Your task to perform on an android device: Go to Maps Image 0: 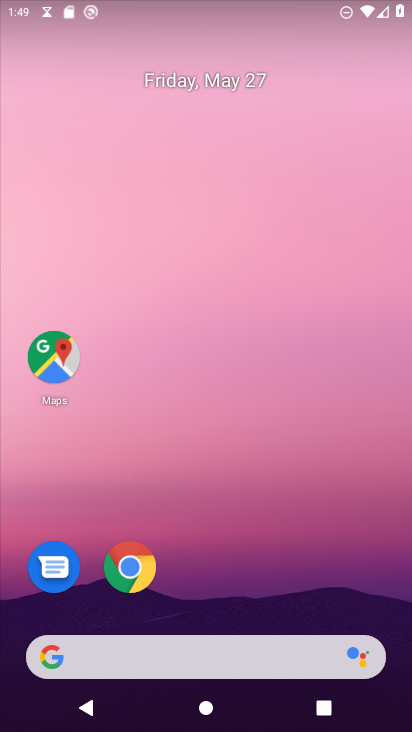
Step 0: click (65, 354)
Your task to perform on an android device: Go to Maps Image 1: 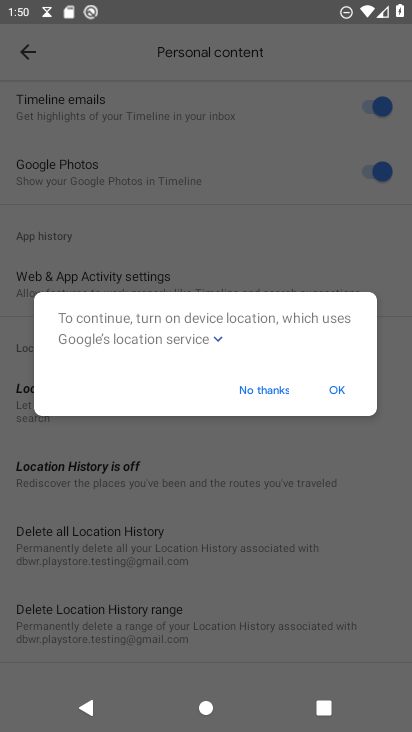
Step 1: click (280, 391)
Your task to perform on an android device: Go to Maps Image 2: 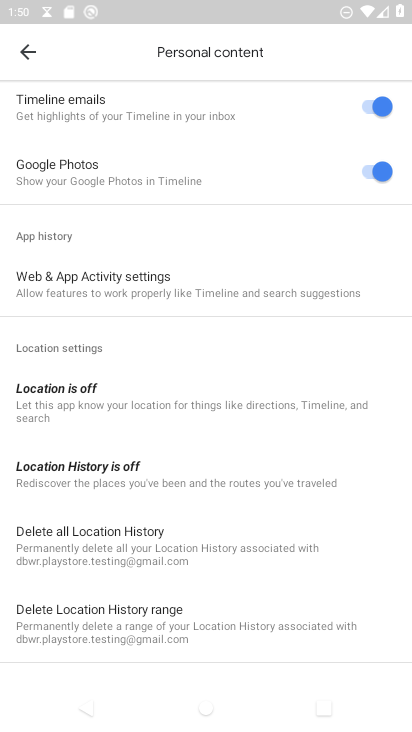
Step 2: click (28, 53)
Your task to perform on an android device: Go to Maps Image 3: 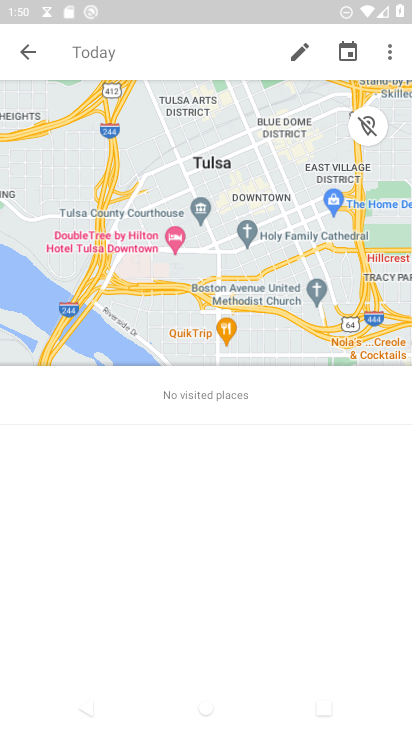
Step 3: click (28, 53)
Your task to perform on an android device: Go to Maps Image 4: 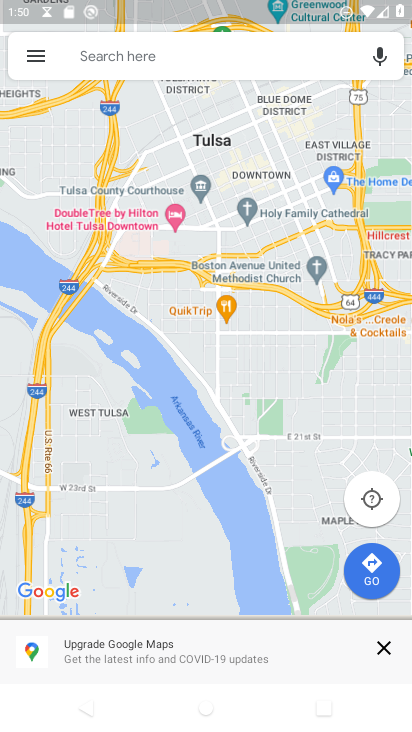
Step 4: task complete